Your task to perform on an android device: turn off notifications in google photos Image 0: 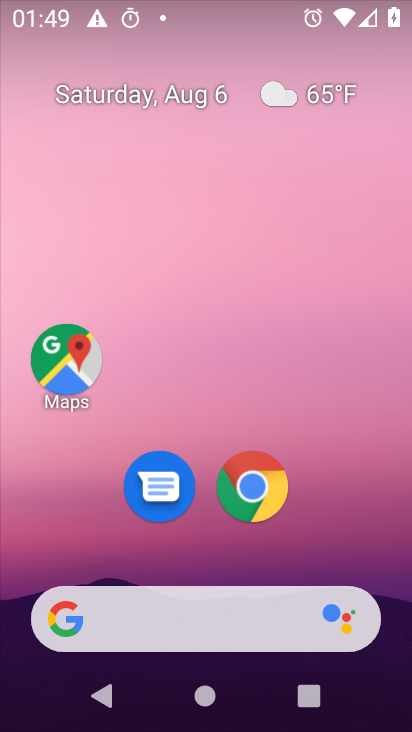
Step 0: drag from (201, 502) to (229, 14)
Your task to perform on an android device: turn off notifications in google photos Image 1: 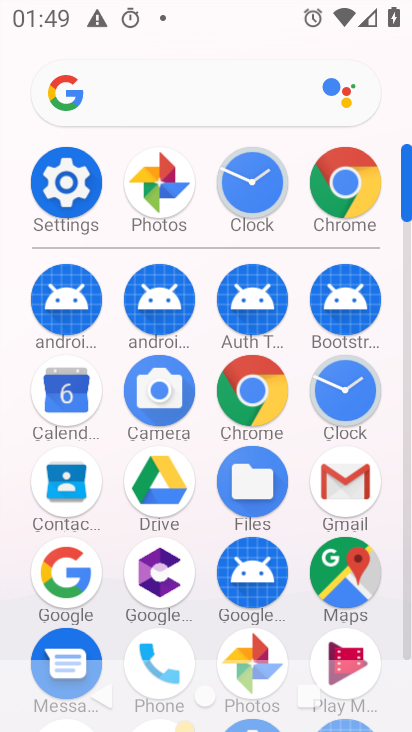
Step 1: click (163, 225)
Your task to perform on an android device: turn off notifications in google photos Image 2: 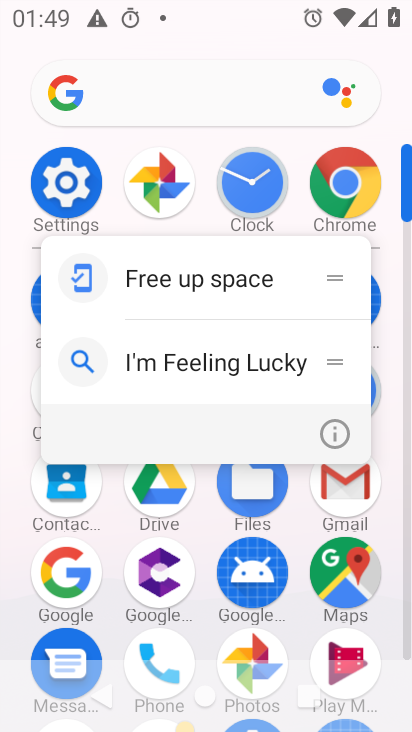
Step 2: click (326, 431)
Your task to perform on an android device: turn off notifications in google photos Image 3: 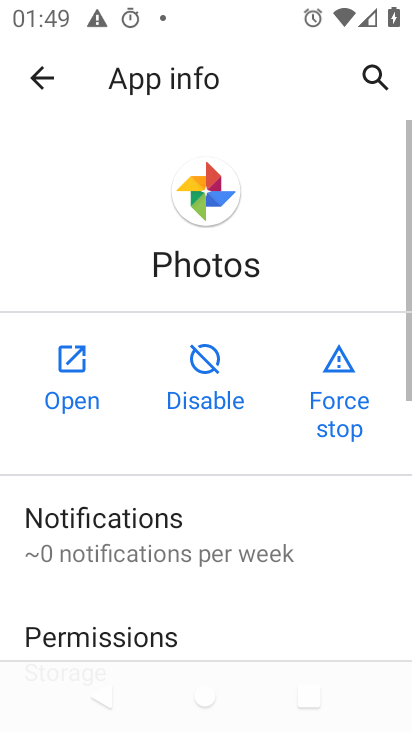
Step 3: click (119, 533)
Your task to perform on an android device: turn off notifications in google photos Image 4: 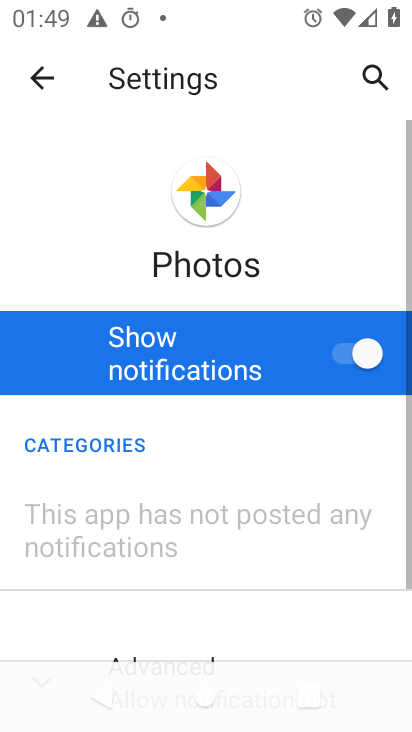
Step 4: click (356, 347)
Your task to perform on an android device: turn off notifications in google photos Image 5: 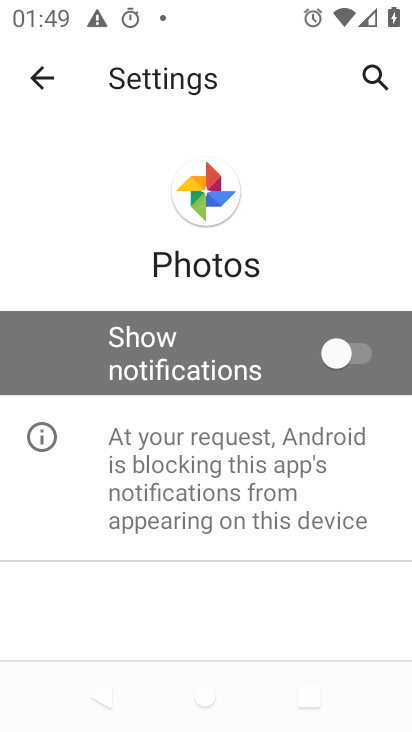
Step 5: task complete